Your task to perform on an android device: Open Yahoo.com Image 0: 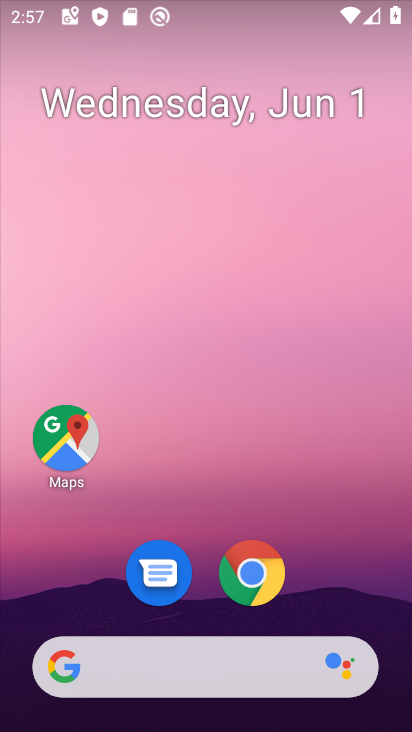
Step 0: click (257, 600)
Your task to perform on an android device: Open Yahoo.com Image 1: 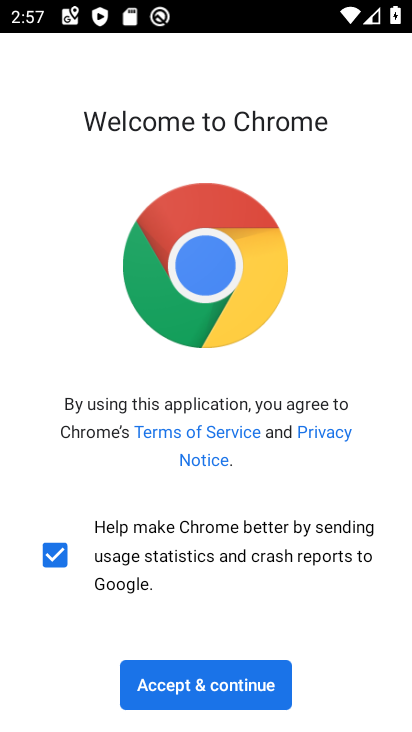
Step 1: click (216, 687)
Your task to perform on an android device: Open Yahoo.com Image 2: 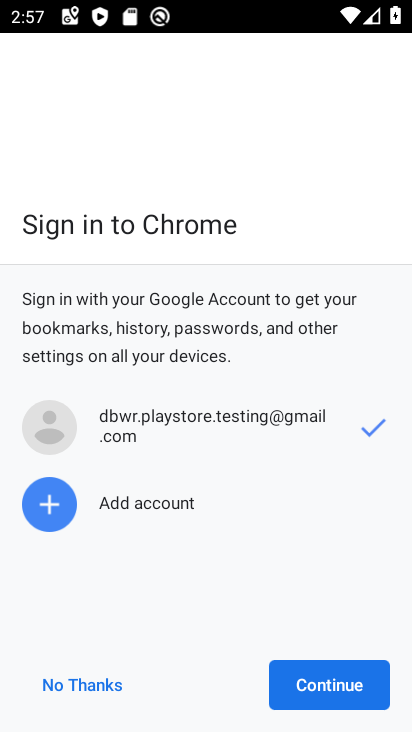
Step 2: click (346, 680)
Your task to perform on an android device: Open Yahoo.com Image 3: 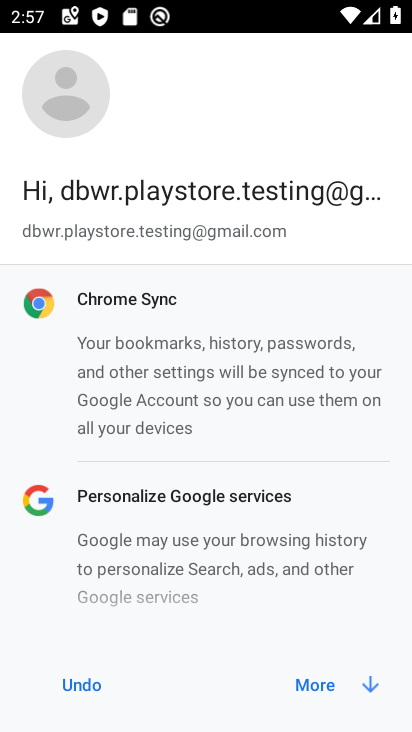
Step 3: click (346, 680)
Your task to perform on an android device: Open Yahoo.com Image 4: 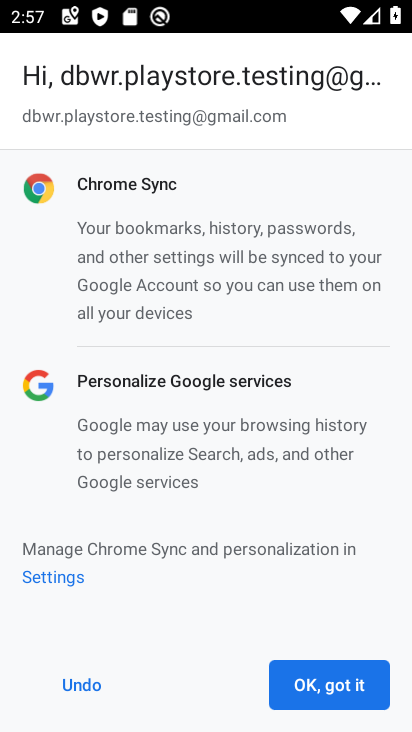
Step 4: click (344, 685)
Your task to perform on an android device: Open Yahoo.com Image 5: 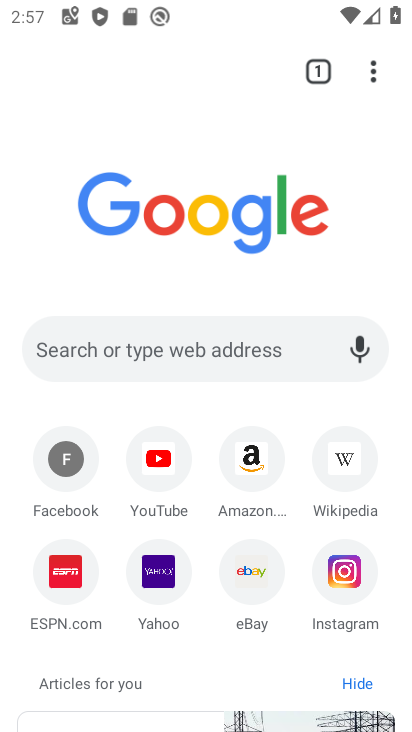
Step 5: click (154, 588)
Your task to perform on an android device: Open Yahoo.com Image 6: 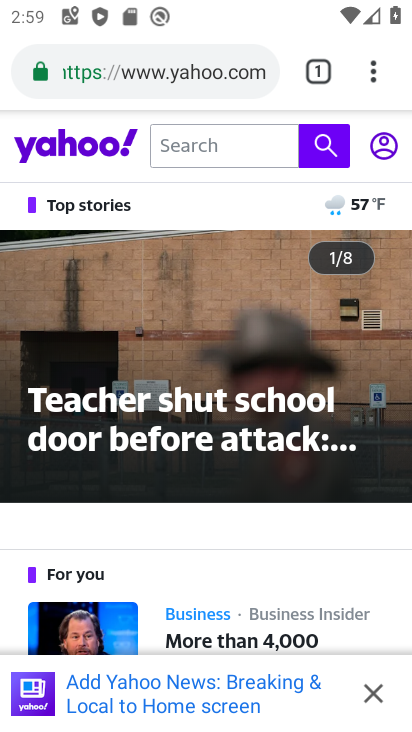
Step 6: task complete